Your task to perform on an android device: Open internet settings Image 0: 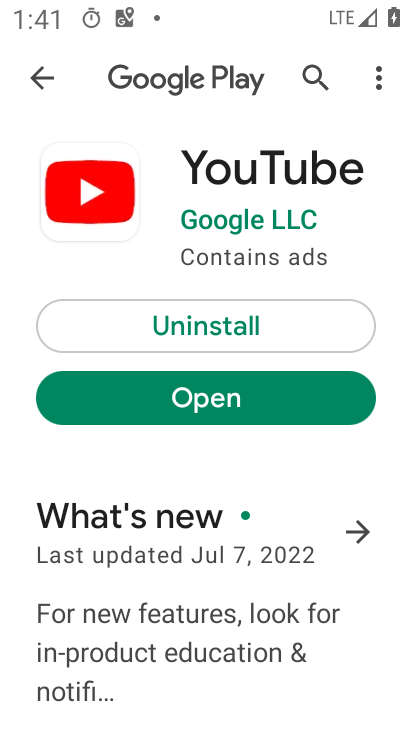
Step 0: press home button
Your task to perform on an android device: Open internet settings Image 1: 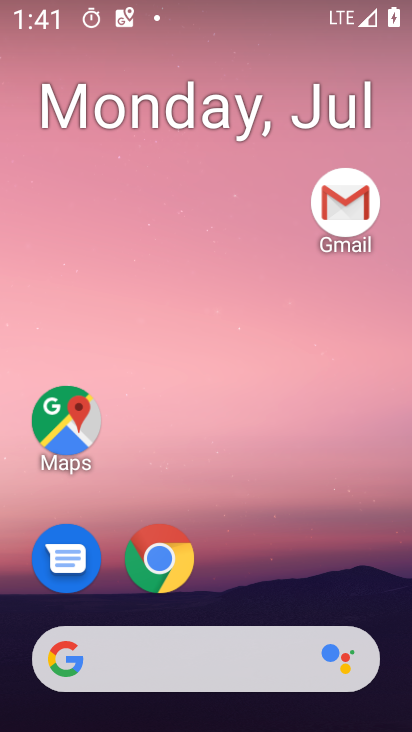
Step 1: drag from (269, 603) to (258, 157)
Your task to perform on an android device: Open internet settings Image 2: 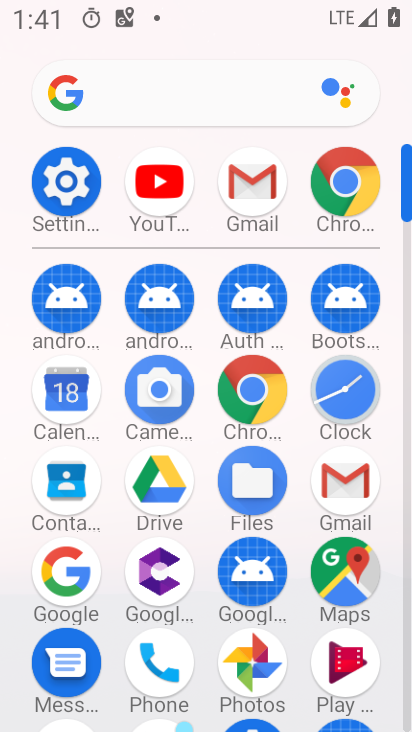
Step 2: click (74, 192)
Your task to perform on an android device: Open internet settings Image 3: 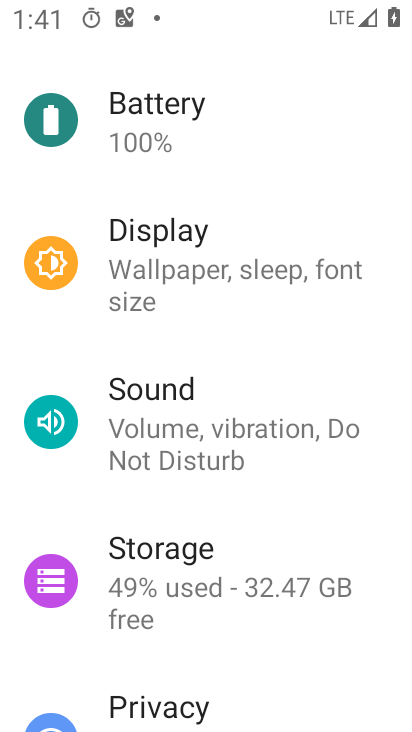
Step 3: drag from (337, 204) to (361, 328)
Your task to perform on an android device: Open internet settings Image 4: 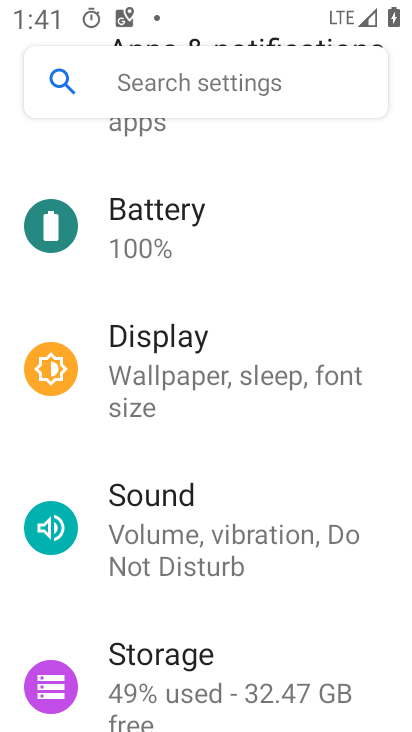
Step 4: drag from (360, 300) to (360, 380)
Your task to perform on an android device: Open internet settings Image 5: 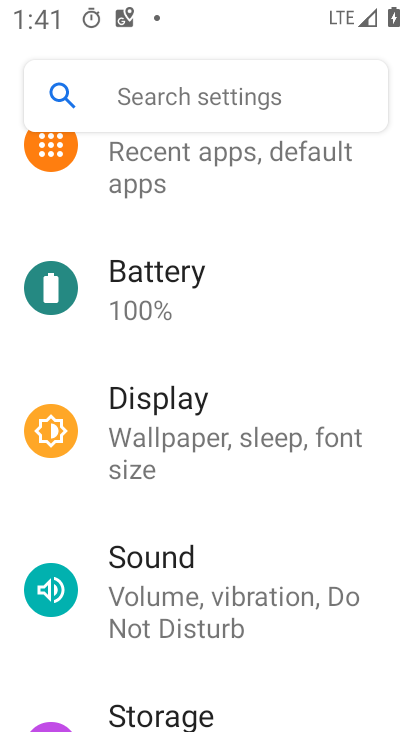
Step 5: drag from (333, 279) to (340, 417)
Your task to perform on an android device: Open internet settings Image 6: 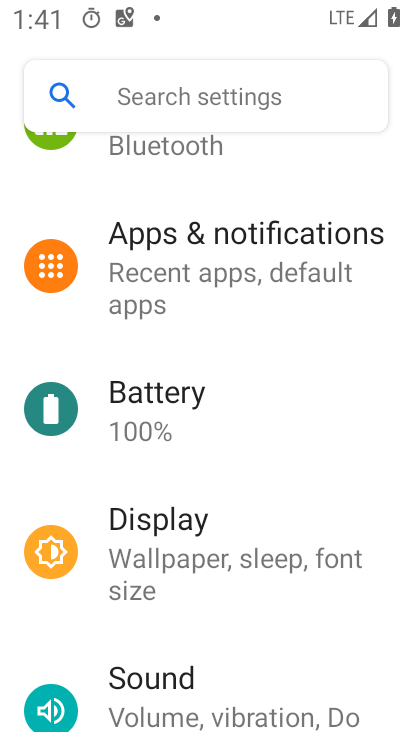
Step 6: drag from (329, 319) to (348, 488)
Your task to perform on an android device: Open internet settings Image 7: 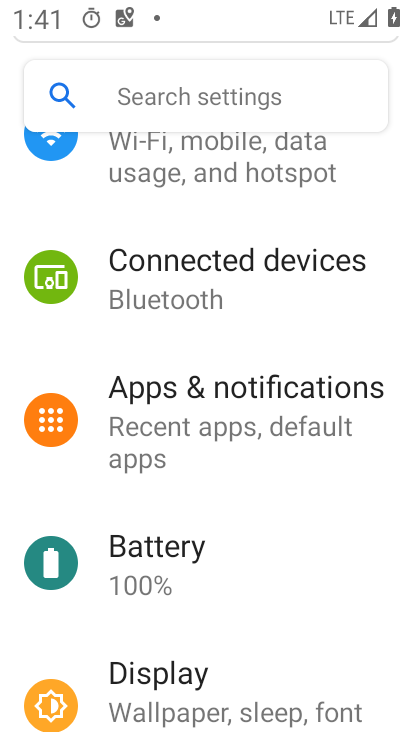
Step 7: drag from (328, 200) to (341, 407)
Your task to perform on an android device: Open internet settings Image 8: 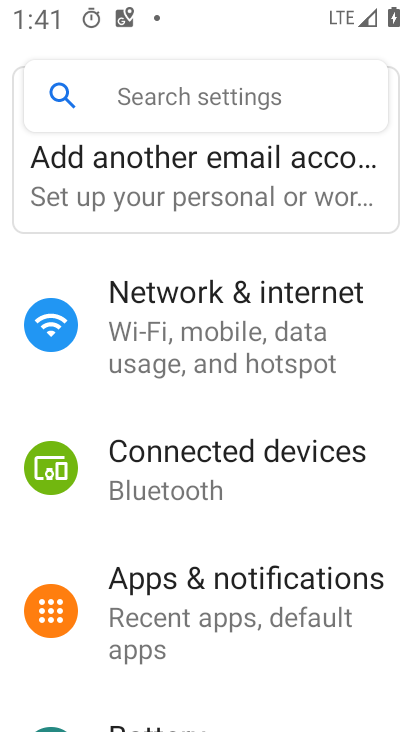
Step 8: click (297, 337)
Your task to perform on an android device: Open internet settings Image 9: 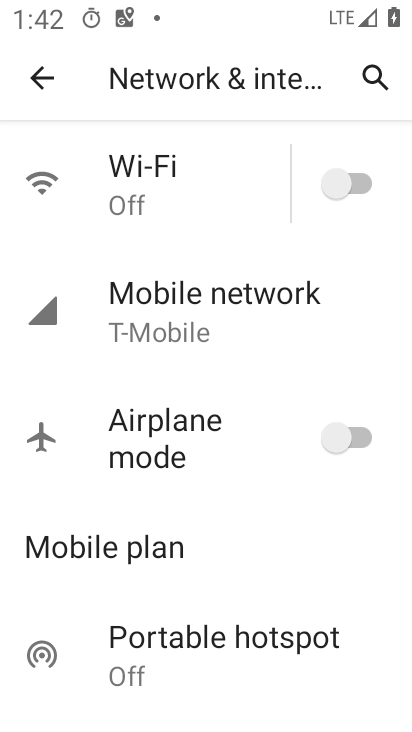
Step 9: task complete